Your task to perform on an android device: Search for the best rated book on Goodreads. Image 0: 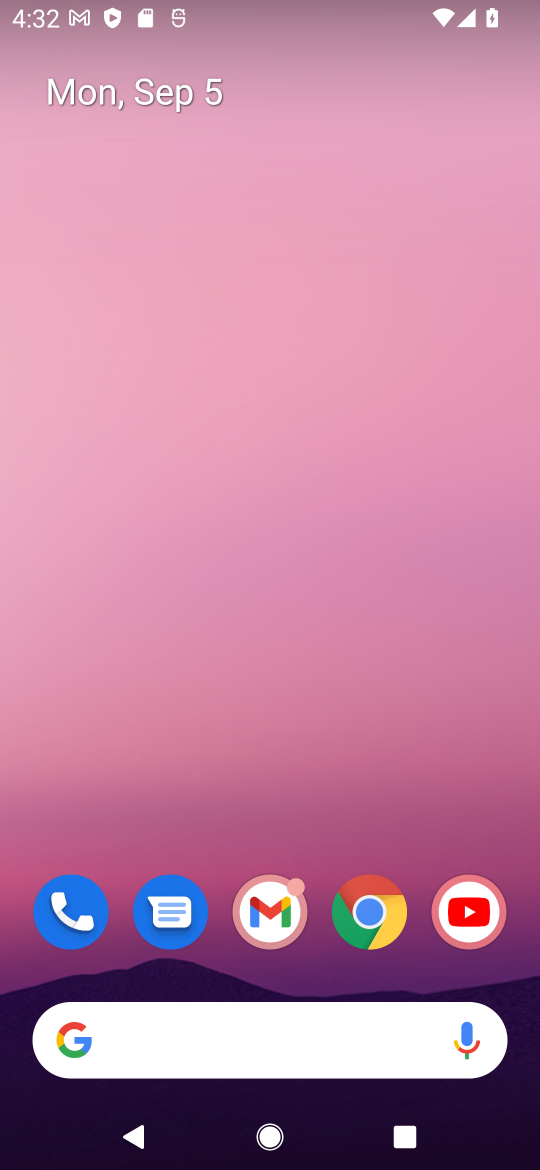
Step 0: click (371, 919)
Your task to perform on an android device: Search for the best rated book on Goodreads. Image 1: 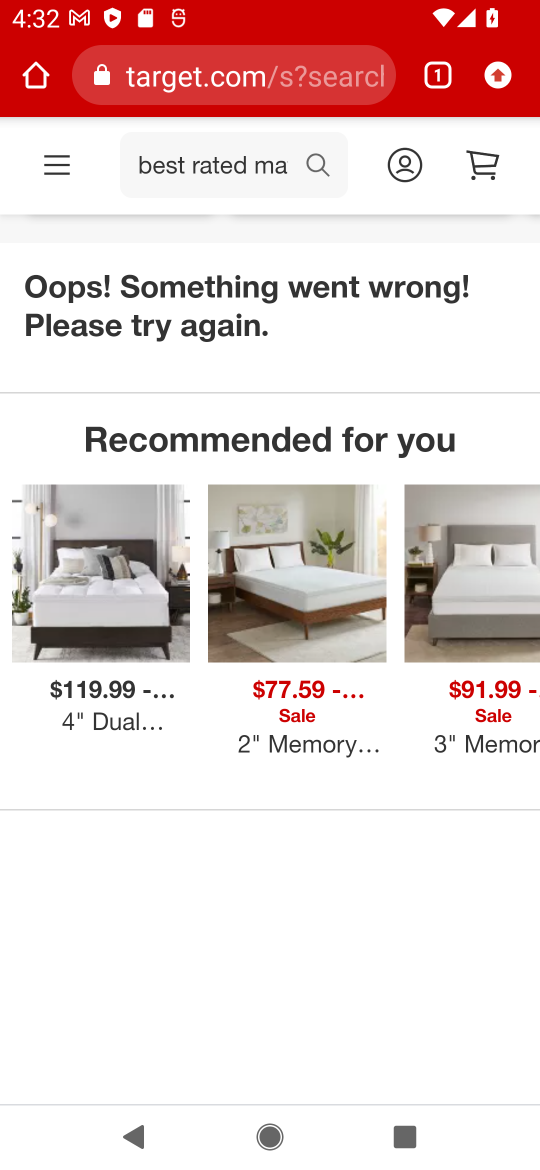
Step 1: click (169, 79)
Your task to perform on an android device: Search for the best rated book on Goodreads. Image 2: 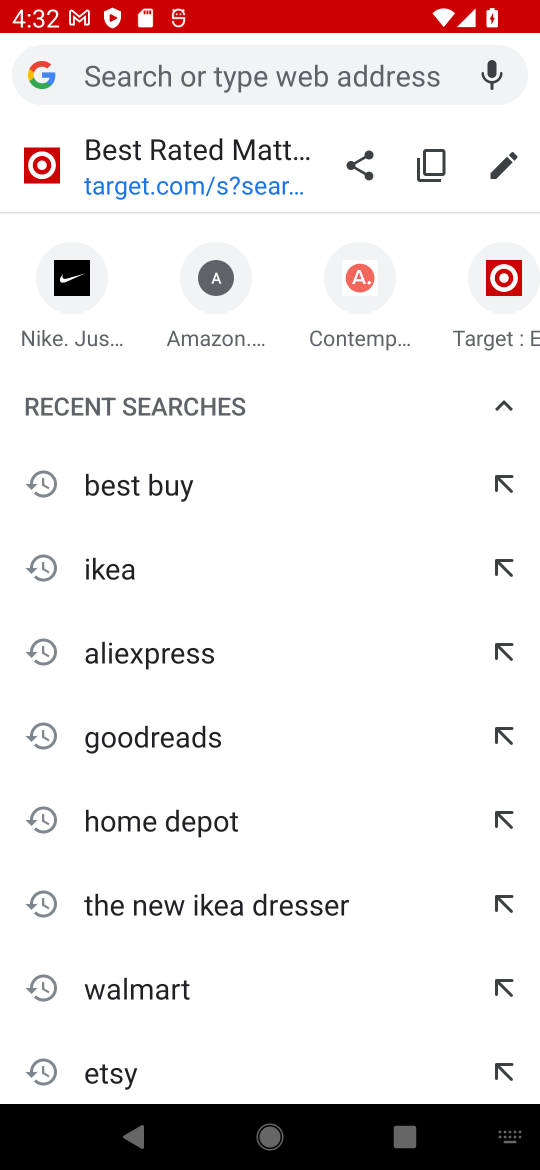
Step 2: type "goodreads"
Your task to perform on an android device: Search for the best rated book on Goodreads. Image 3: 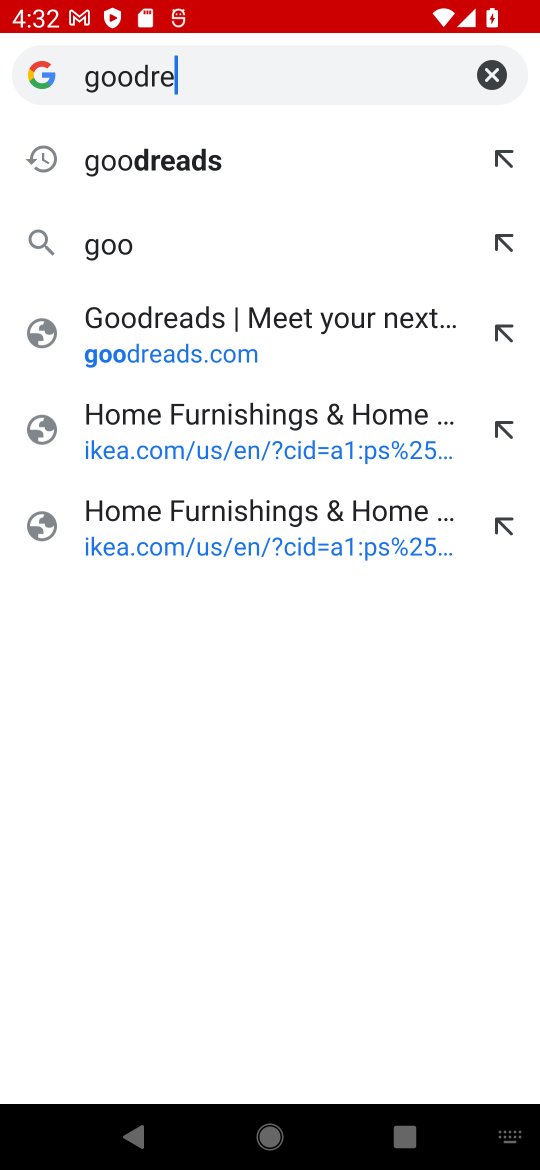
Step 3: type ""
Your task to perform on an android device: Search for the best rated book on Goodreads. Image 4: 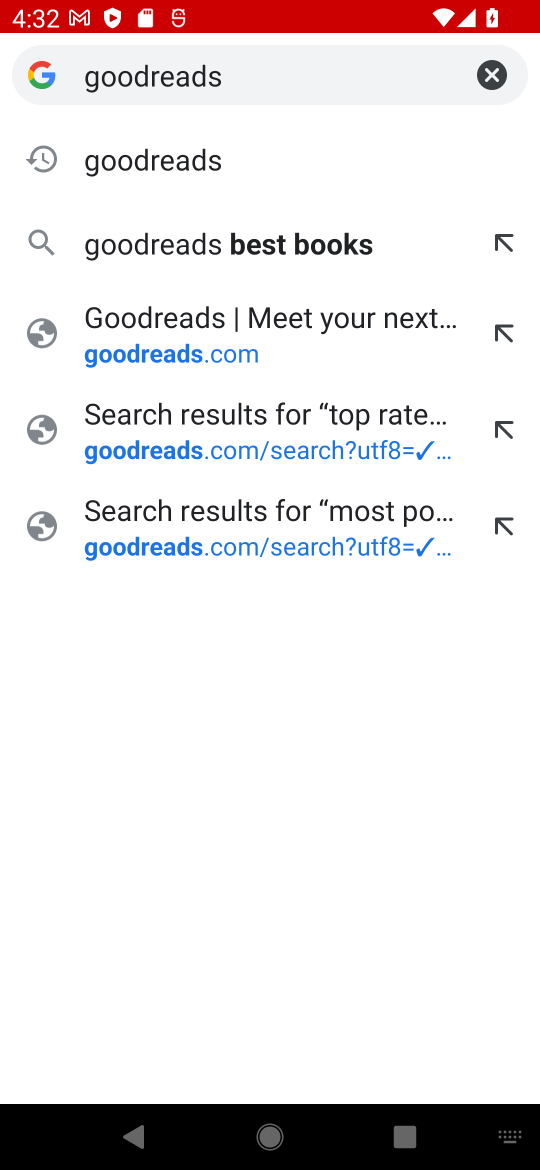
Step 4: press enter
Your task to perform on an android device: Search for the best rated book on Goodreads. Image 5: 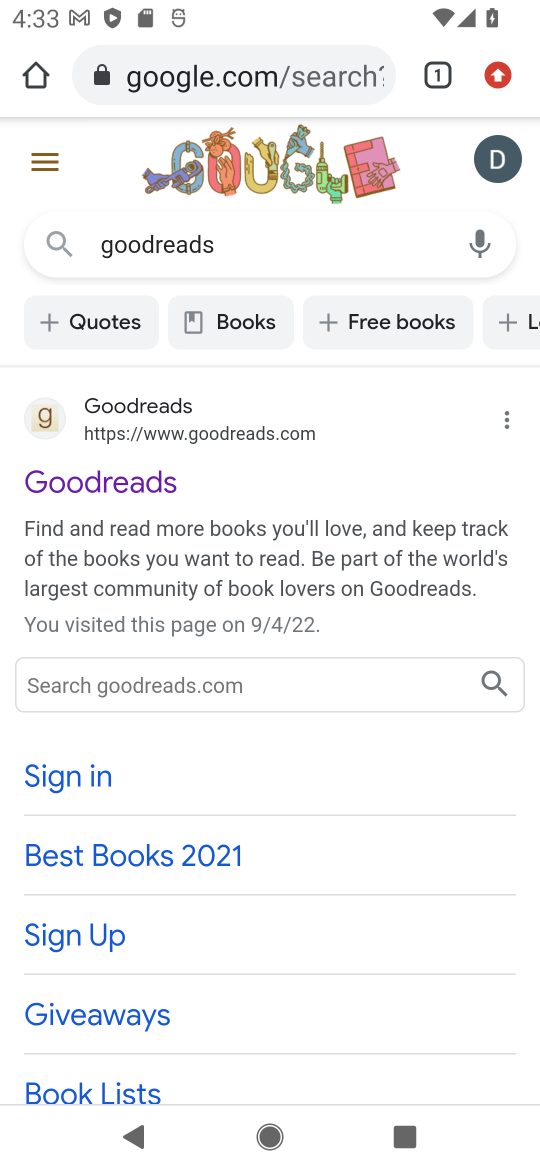
Step 5: click (132, 479)
Your task to perform on an android device: Search for the best rated book on Goodreads. Image 6: 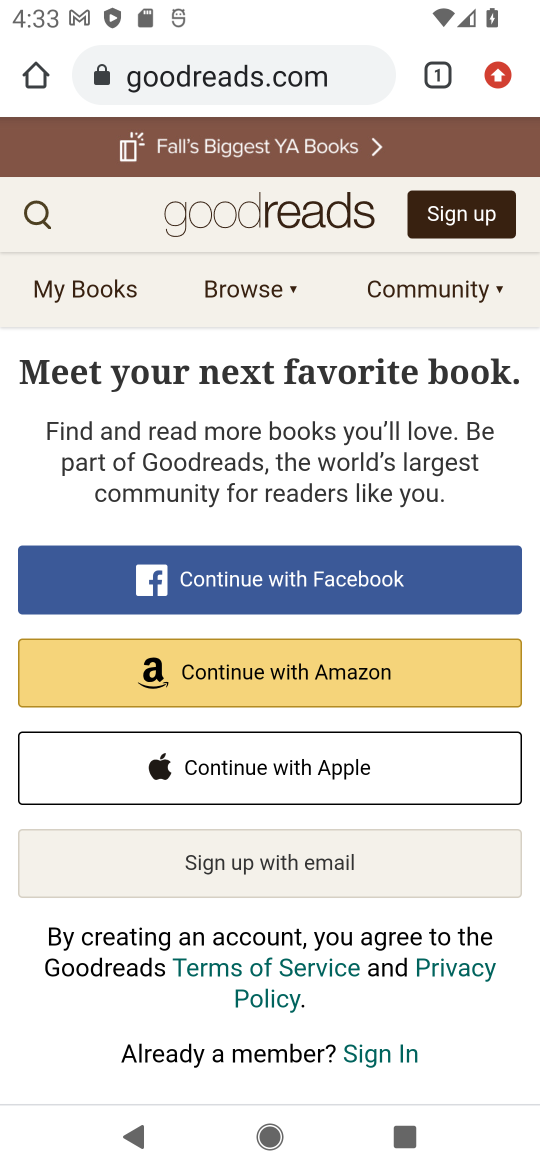
Step 6: click (248, 308)
Your task to perform on an android device: Search for the best rated book on Goodreads. Image 7: 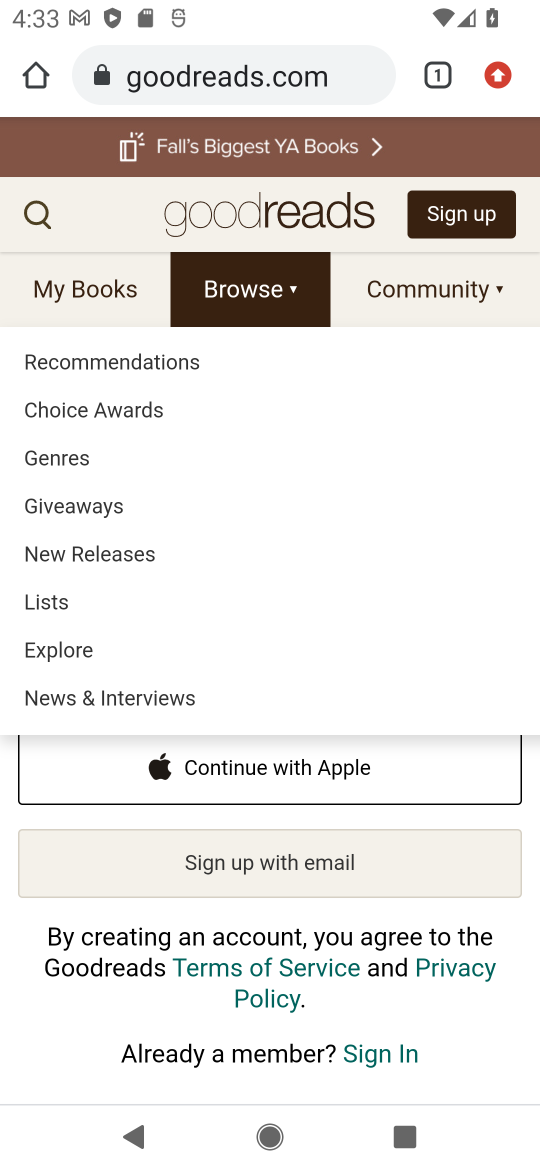
Step 7: click (33, 1008)
Your task to perform on an android device: Search for the best rated book on Goodreads. Image 8: 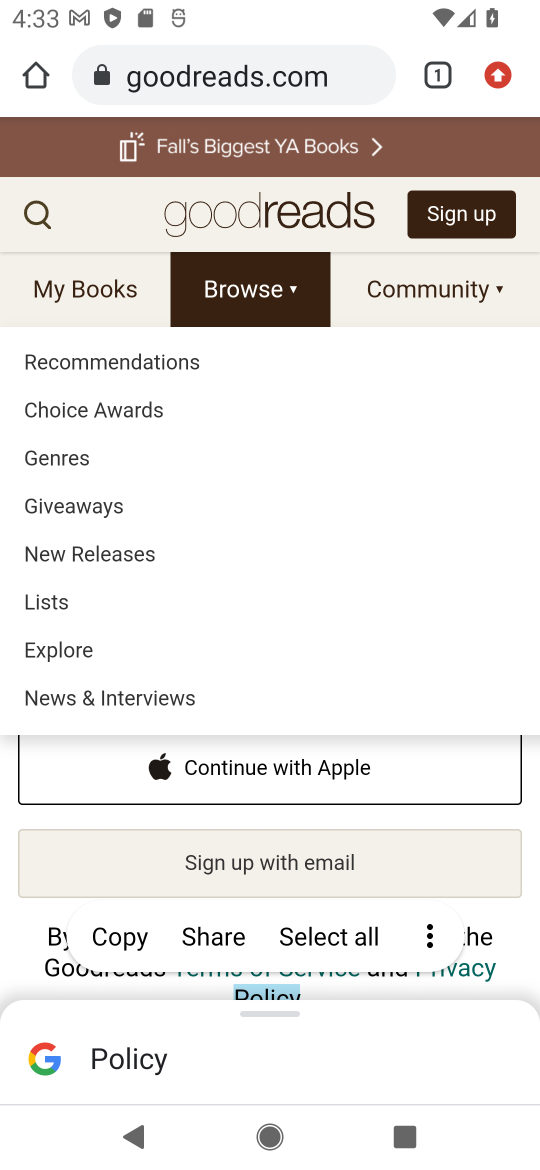
Step 8: drag from (54, 1004) to (55, 497)
Your task to perform on an android device: Search for the best rated book on Goodreads. Image 9: 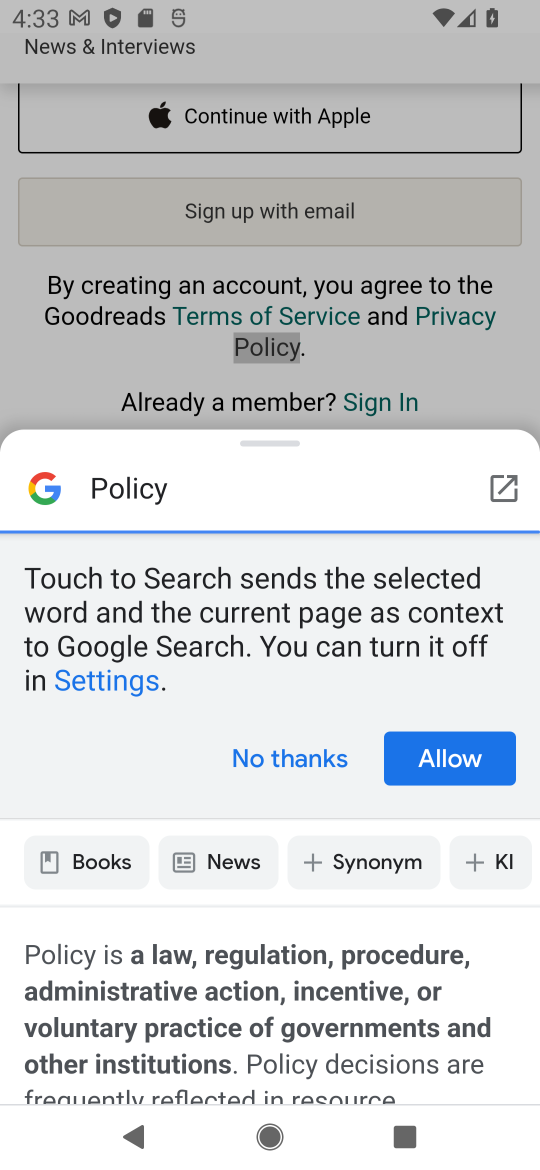
Step 9: click (69, 501)
Your task to perform on an android device: Search for the best rated book on Goodreads. Image 10: 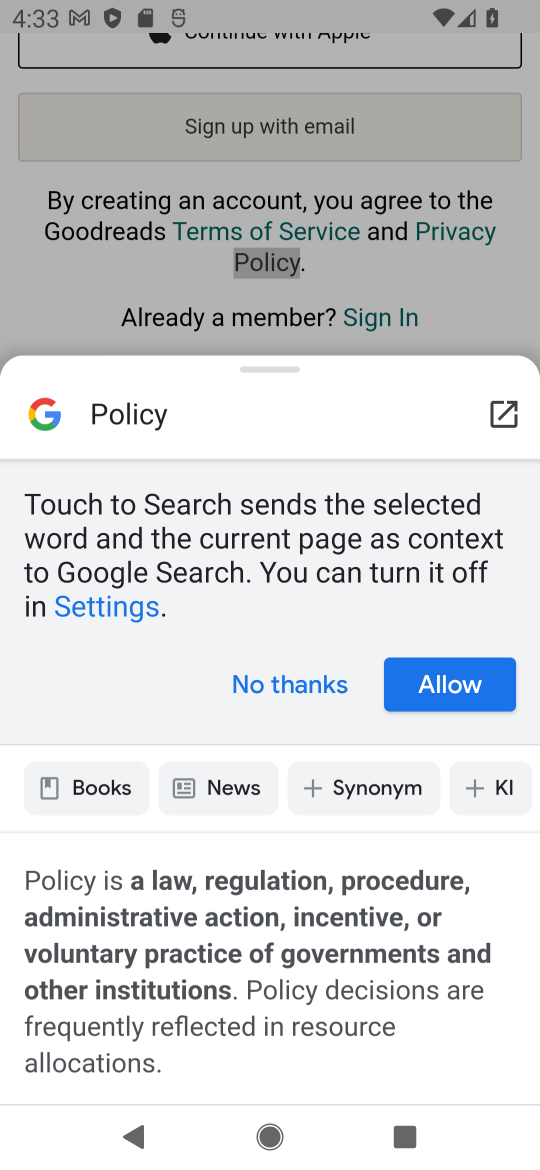
Step 10: click (288, 711)
Your task to perform on an android device: Search for the best rated book on Goodreads. Image 11: 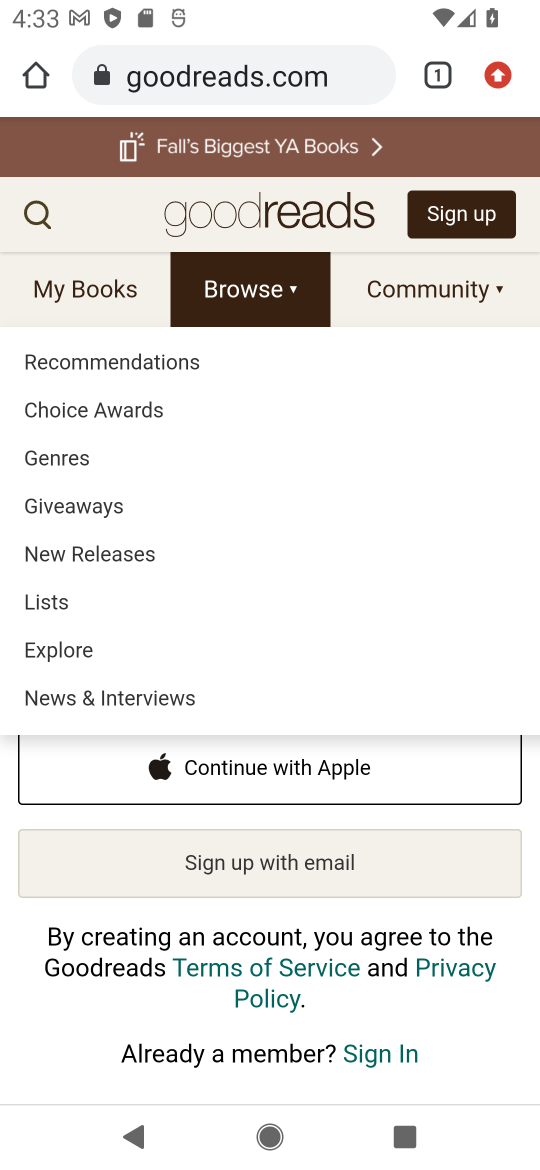
Step 11: drag from (119, 763) to (124, 569)
Your task to perform on an android device: Search for the best rated book on Goodreads. Image 12: 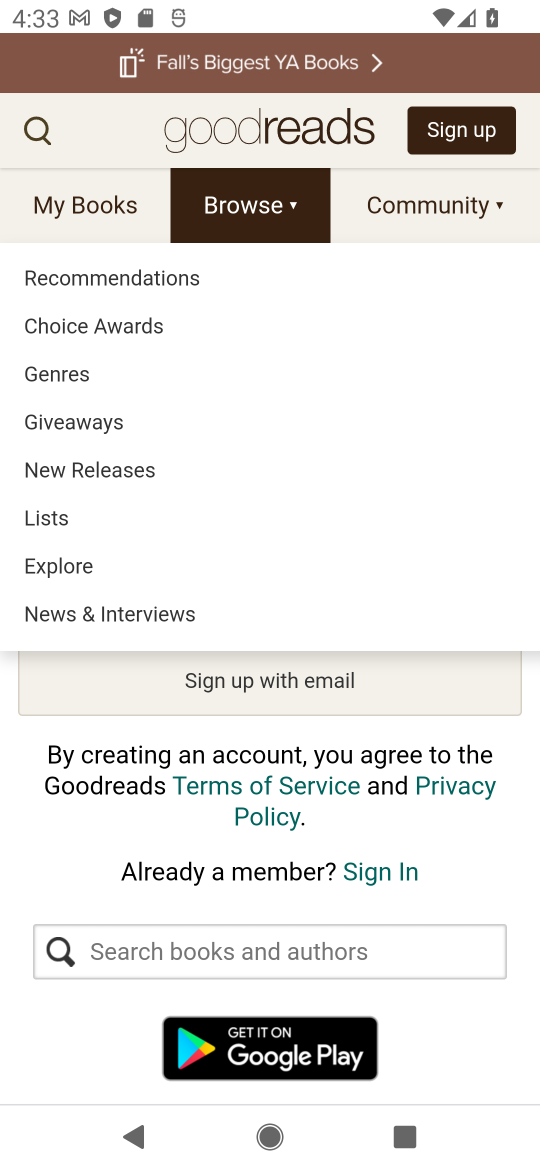
Step 12: click (217, 950)
Your task to perform on an android device: Search for the best rated book on Goodreads. Image 13: 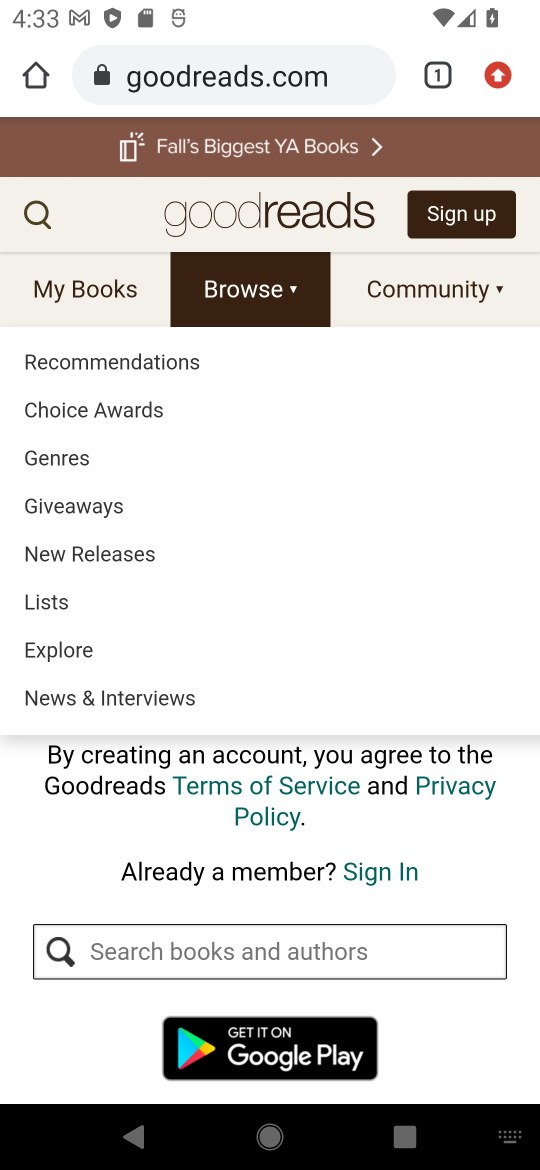
Step 13: type "best rated book"
Your task to perform on an android device: Search for the best rated book on Goodreads. Image 14: 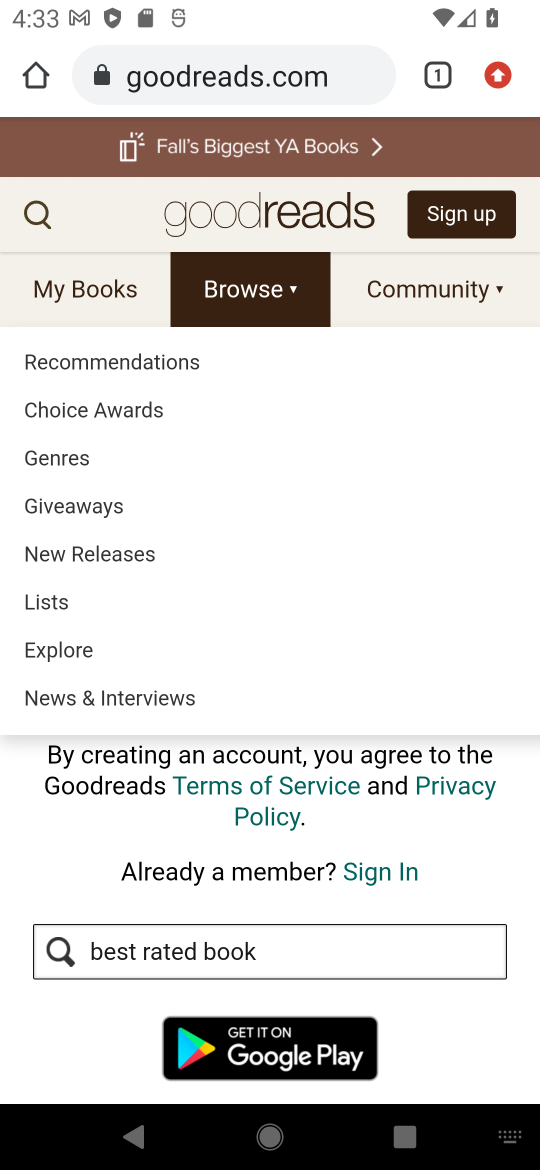
Step 14: press enter
Your task to perform on an android device: Search for the best rated book on Goodreads. Image 15: 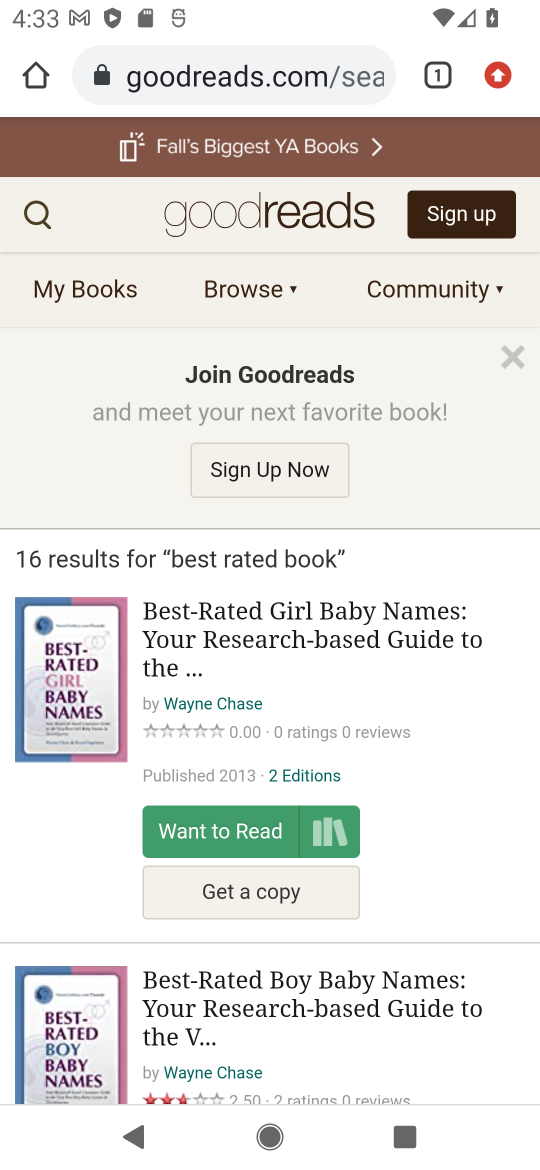
Step 15: task complete